Your task to perform on an android device: toggle improve location accuracy Image 0: 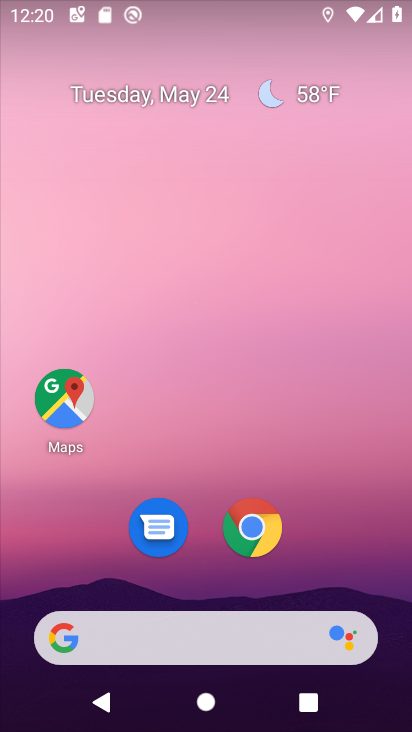
Step 0: drag from (385, 554) to (305, 174)
Your task to perform on an android device: toggle improve location accuracy Image 1: 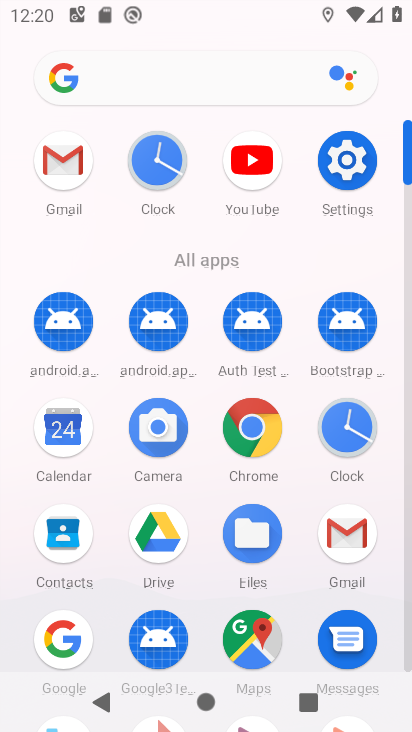
Step 1: click (343, 167)
Your task to perform on an android device: toggle improve location accuracy Image 2: 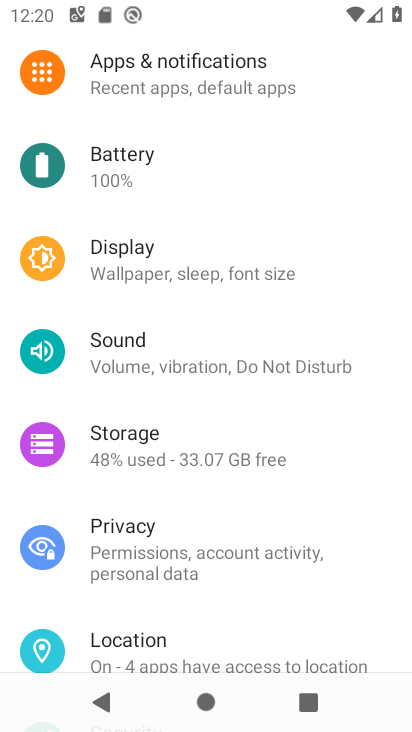
Step 2: click (206, 635)
Your task to perform on an android device: toggle improve location accuracy Image 3: 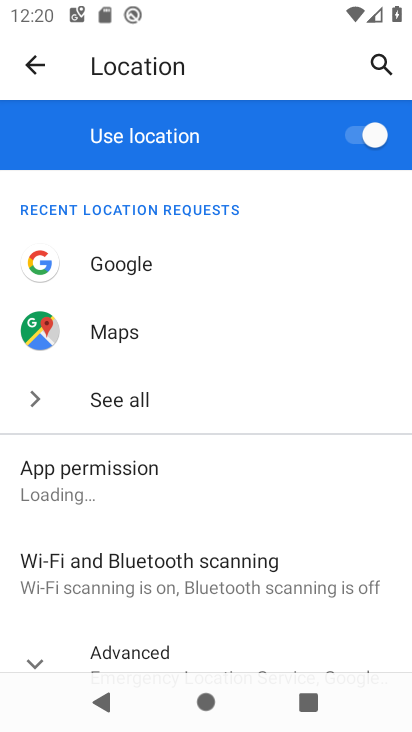
Step 3: drag from (250, 648) to (246, 272)
Your task to perform on an android device: toggle improve location accuracy Image 4: 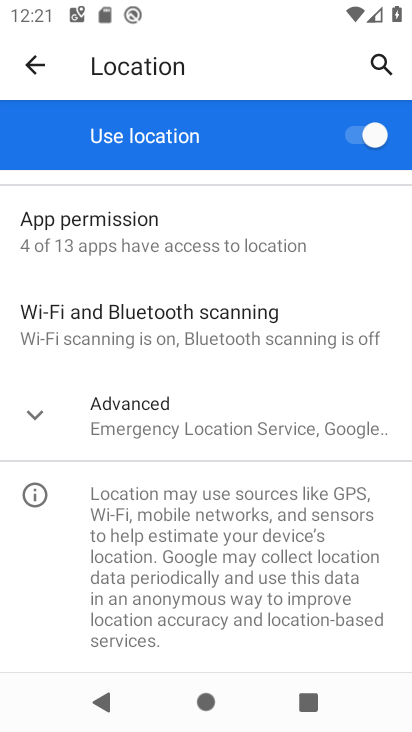
Step 4: click (241, 403)
Your task to perform on an android device: toggle improve location accuracy Image 5: 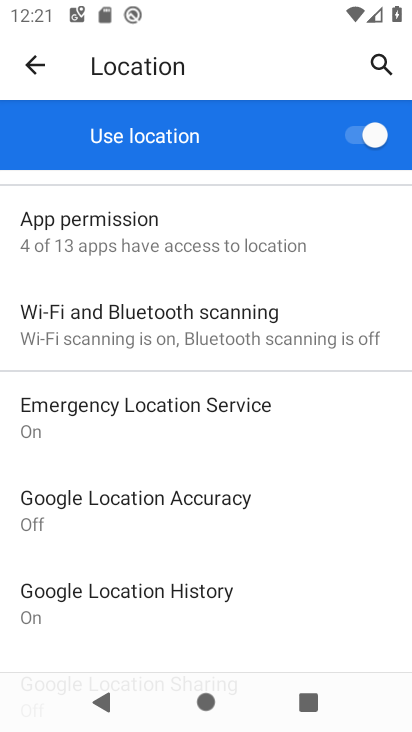
Step 5: click (249, 499)
Your task to perform on an android device: toggle improve location accuracy Image 6: 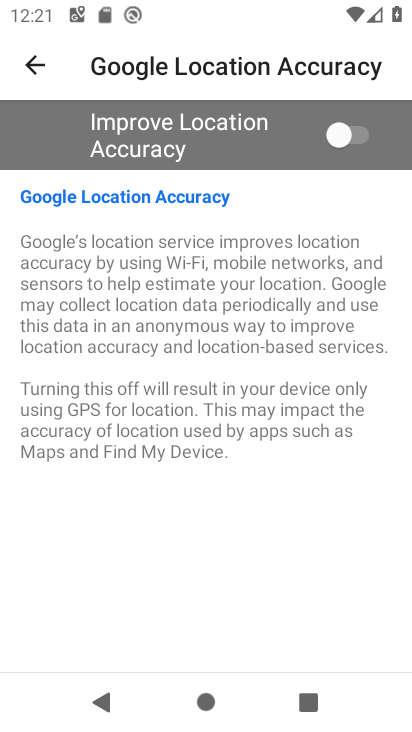
Step 6: click (351, 143)
Your task to perform on an android device: toggle improve location accuracy Image 7: 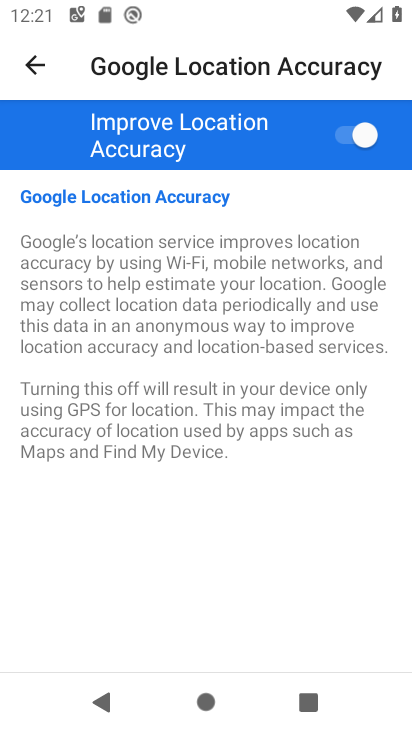
Step 7: task complete